Your task to perform on an android device: Open Youtube and go to the subscriptions tab Image 0: 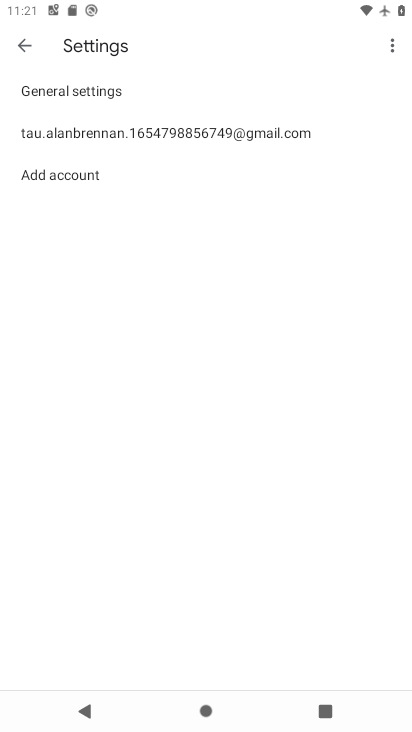
Step 0: press home button
Your task to perform on an android device: Open Youtube and go to the subscriptions tab Image 1: 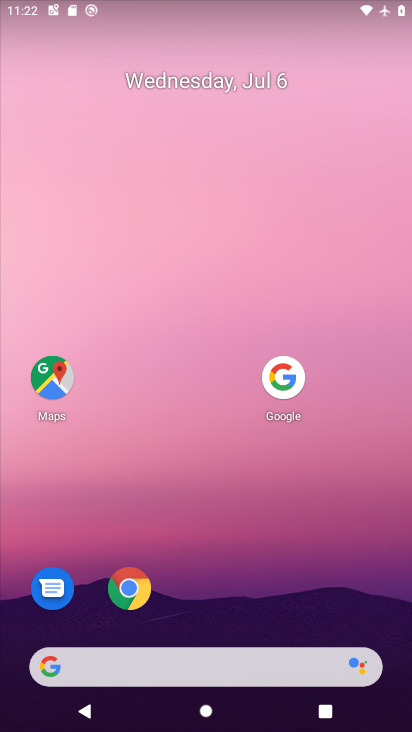
Step 1: drag from (222, 665) to (302, 140)
Your task to perform on an android device: Open Youtube and go to the subscriptions tab Image 2: 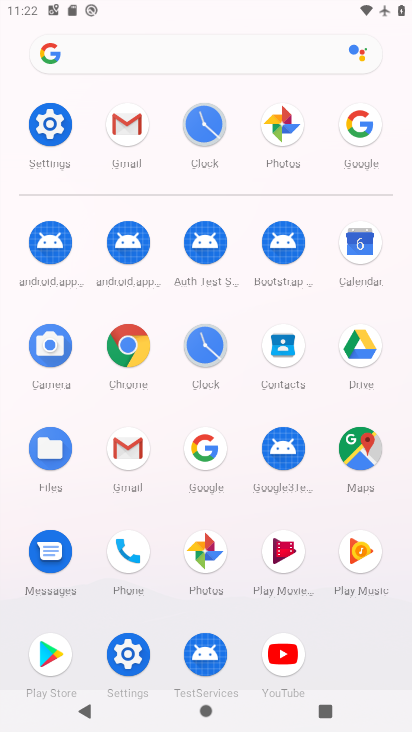
Step 2: click (280, 659)
Your task to perform on an android device: Open Youtube and go to the subscriptions tab Image 3: 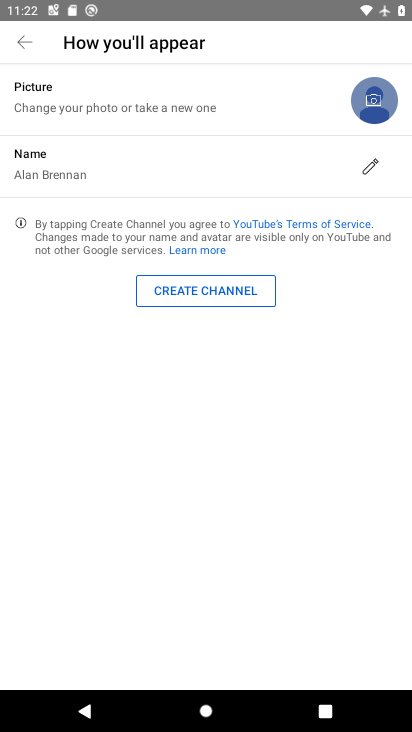
Step 3: click (28, 41)
Your task to perform on an android device: Open Youtube and go to the subscriptions tab Image 4: 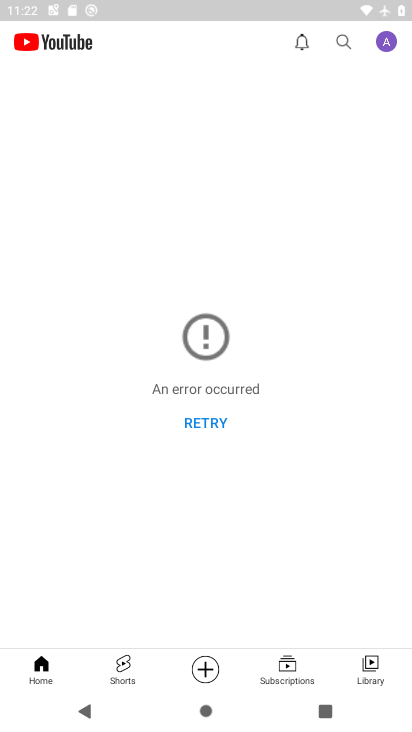
Step 4: press home button
Your task to perform on an android device: Open Youtube and go to the subscriptions tab Image 5: 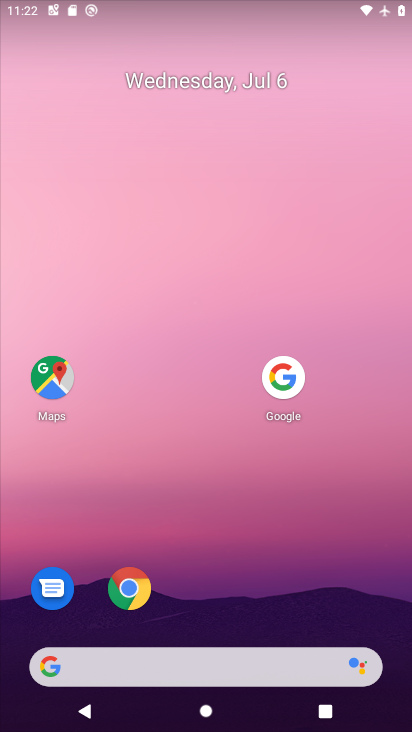
Step 5: drag from (229, 651) to (379, 44)
Your task to perform on an android device: Open Youtube and go to the subscriptions tab Image 6: 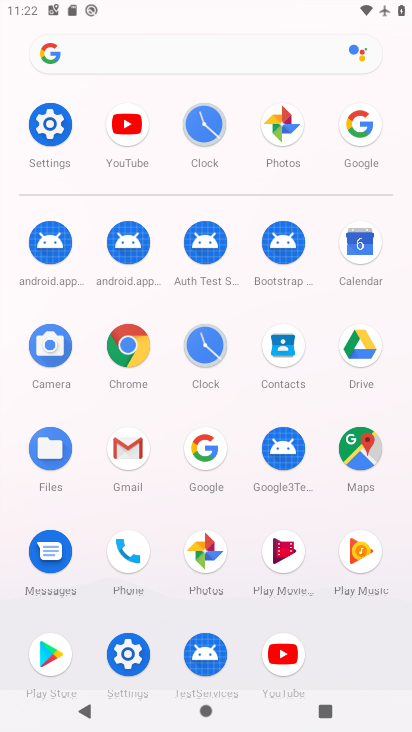
Step 6: click (281, 653)
Your task to perform on an android device: Open Youtube and go to the subscriptions tab Image 7: 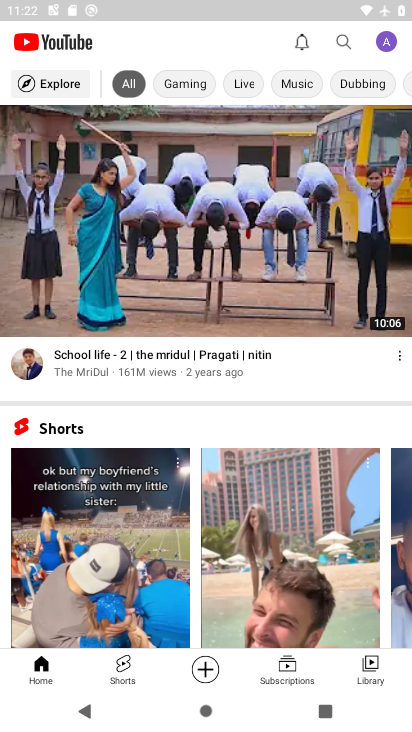
Step 7: click (295, 678)
Your task to perform on an android device: Open Youtube and go to the subscriptions tab Image 8: 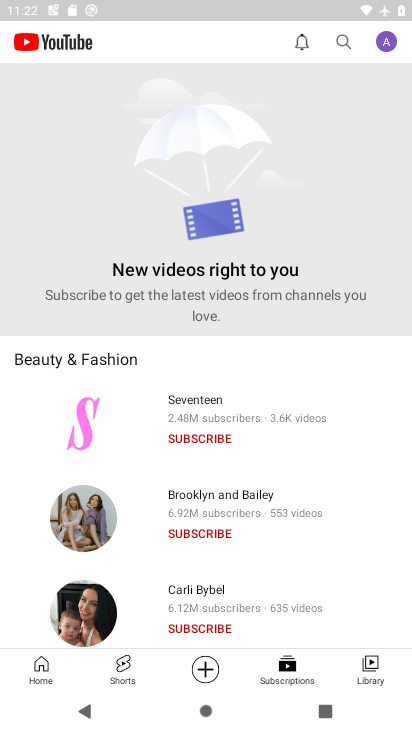
Step 8: task complete